Your task to perform on an android device: make emails show in primary in the gmail app Image 0: 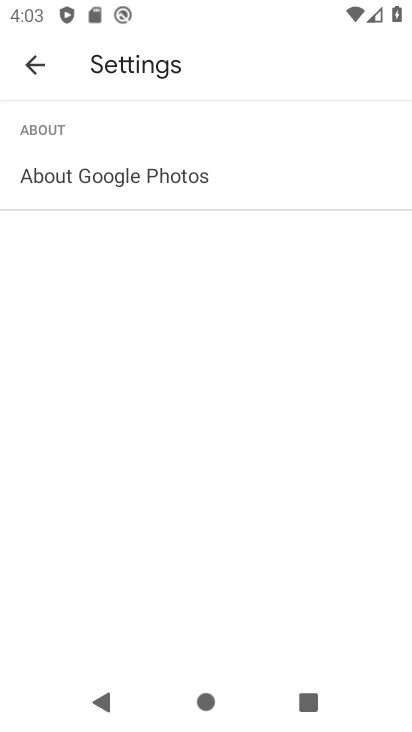
Step 0: click (38, 70)
Your task to perform on an android device: make emails show in primary in the gmail app Image 1: 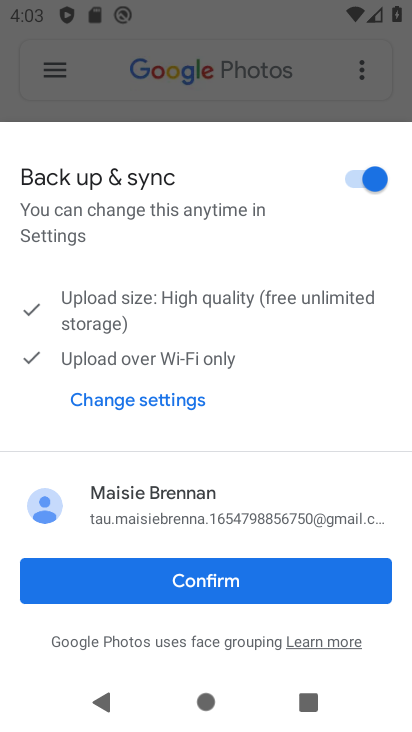
Step 1: press home button
Your task to perform on an android device: make emails show in primary in the gmail app Image 2: 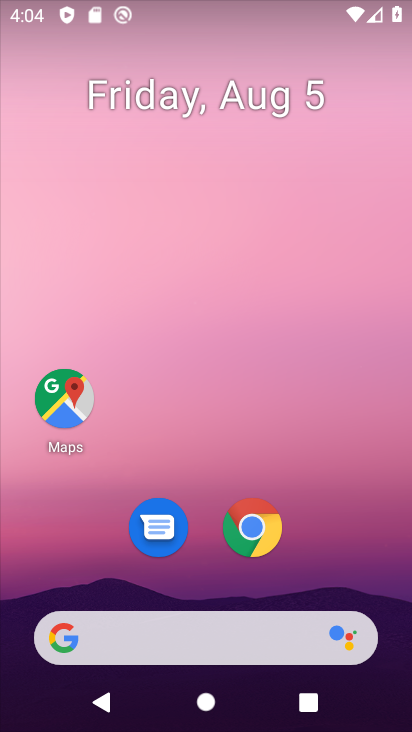
Step 2: drag from (201, 549) to (225, 4)
Your task to perform on an android device: make emails show in primary in the gmail app Image 3: 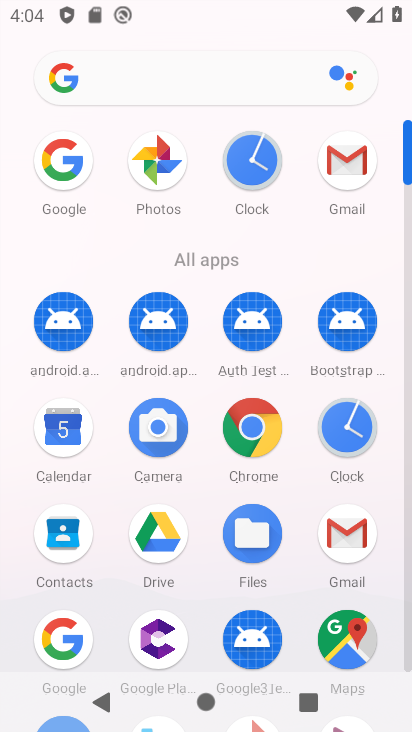
Step 3: click (343, 152)
Your task to perform on an android device: make emails show in primary in the gmail app Image 4: 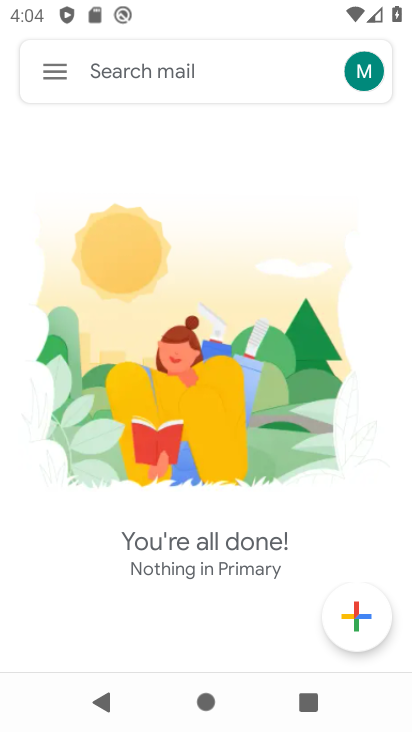
Step 4: click (49, 71)
Your task to perform on an android device: make emails show in primary in the gmail app Image 5: 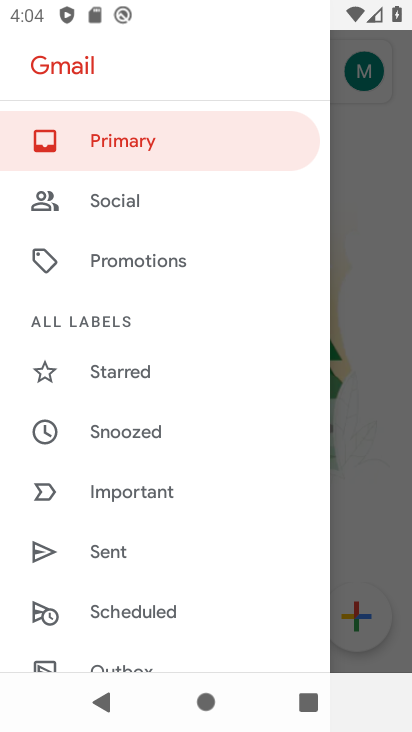
Step 5: drag from (128, 631) to (152, 14)
Your task to perform on an android device: make emails show in primary in the gmail app Image 6: 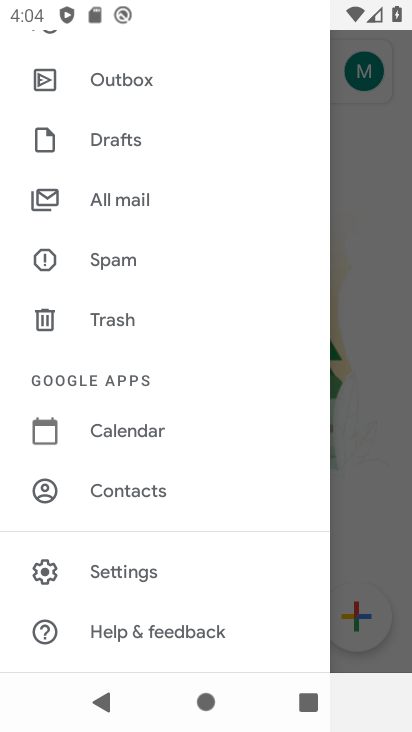
Step 6: click (133, 570)
Your task to perform on an android device: make emails show in primary in the gmail app Image 7: 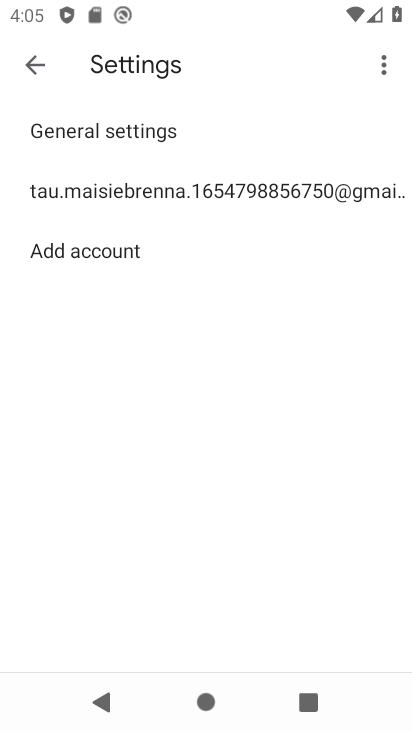
Step 7: click (63, 190)
Your task to perform on an android device: make emails show in primary in the gmail app Image 8: 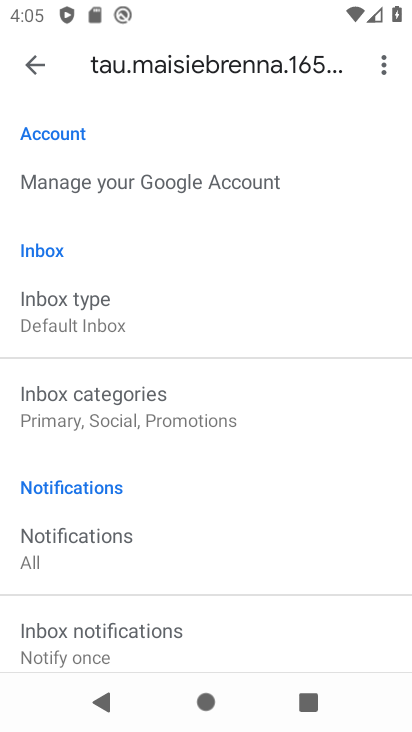
Step 8: drag from (147, 603) to (163, 669)
Your task to perform on an android device: make emails show in primary in the gmail app Image 9: 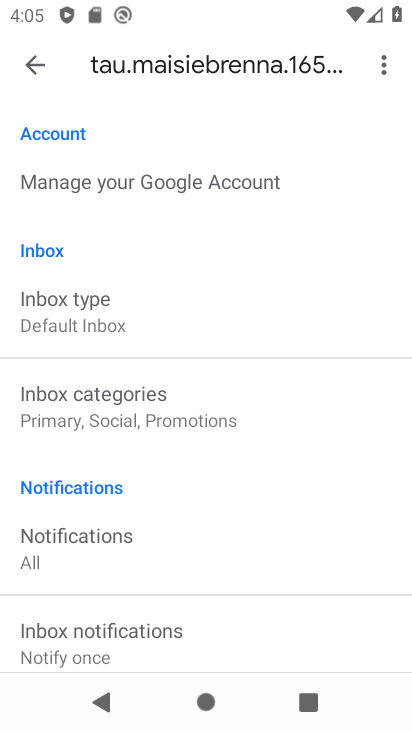
Step 9: click (88, 317)
Your task to perform on an android device: make emails show in primary in the gmail app Image 10: 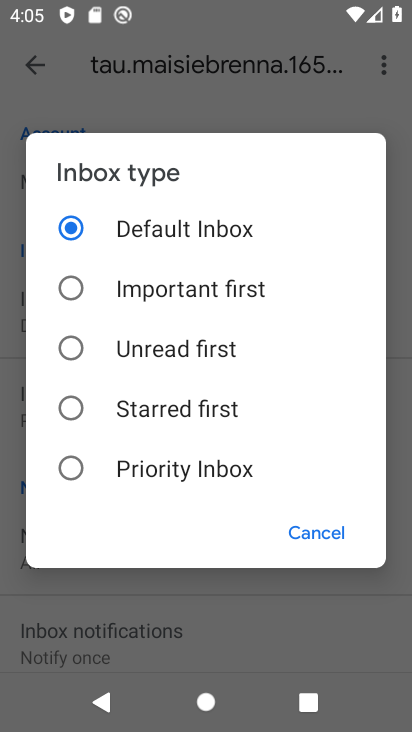
Step 10: task complete